Your task to perform on an android device: Open the stopwatch Image 0: 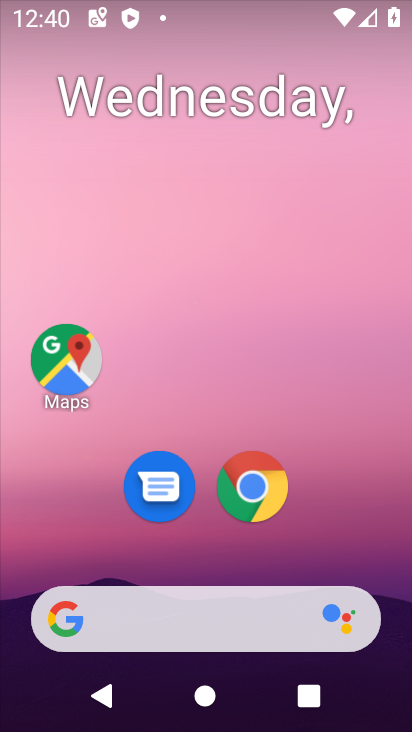
Step 0: drag from (354, 527) to (357, 97)
Your task to perform on an android device: Open the stopwatch Image 1: 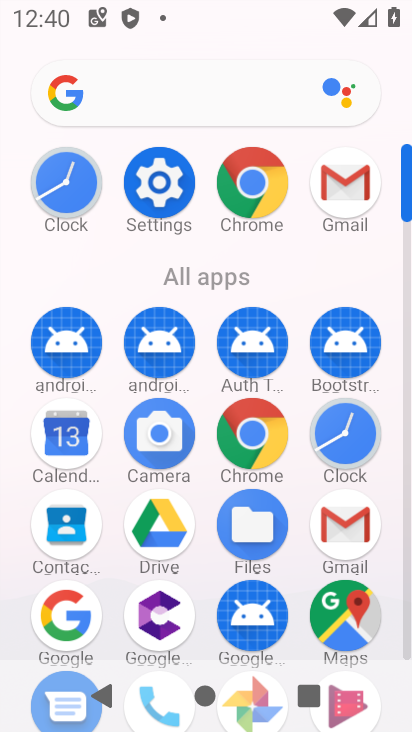
Step 1: click (353, 433)
Your task to perform on an android device: Open the stopwatch Image 2: 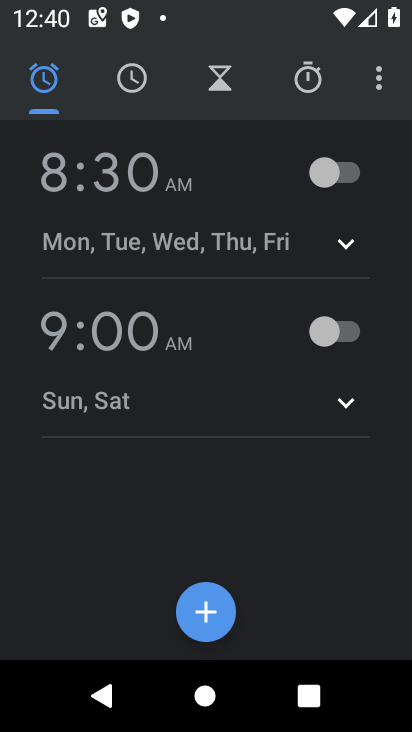
Step 2: click (312, 81)
Your task to perform on an android device: Open the stopwatch Image 3: 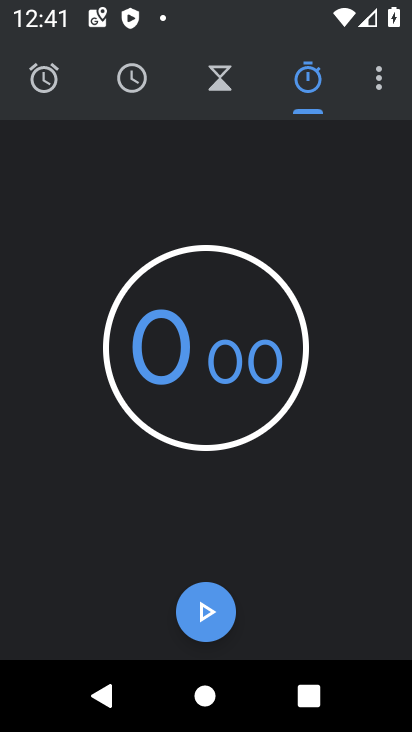
Step 3: task complete